Your task to perform on an android device: check android version Image 0: 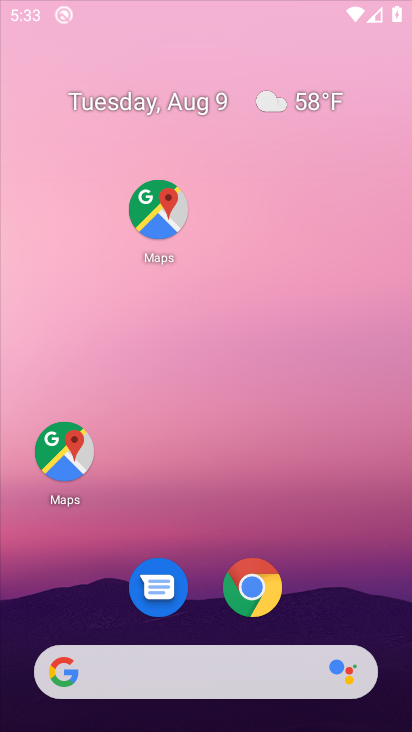
Step 0: click (240, 455)
Your task to perform on an android device: check android version Image 1: 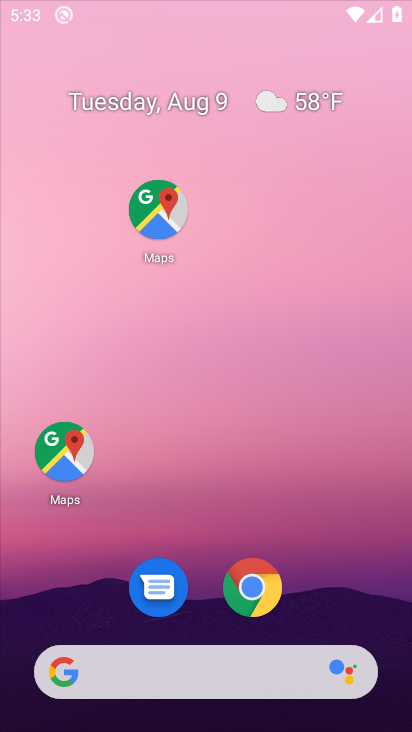
Step 1: drag from (190, 677) to (227, 225)
Your task to perform on an android device: check android version Image 2: 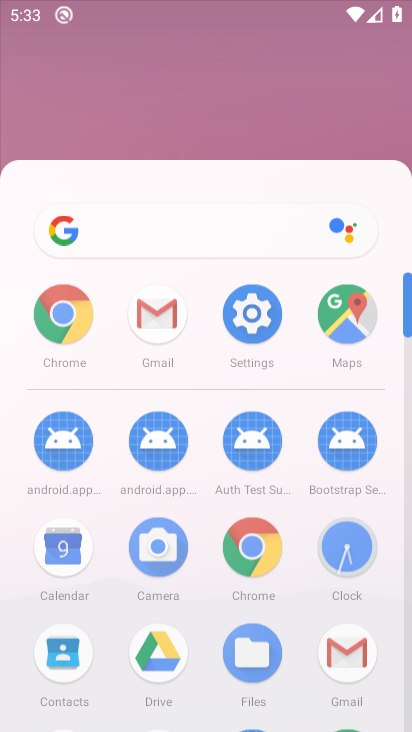
Step 2: drag from (268, 590) to (194, 171)
Your task to perform on an android device: check android version Image 3: 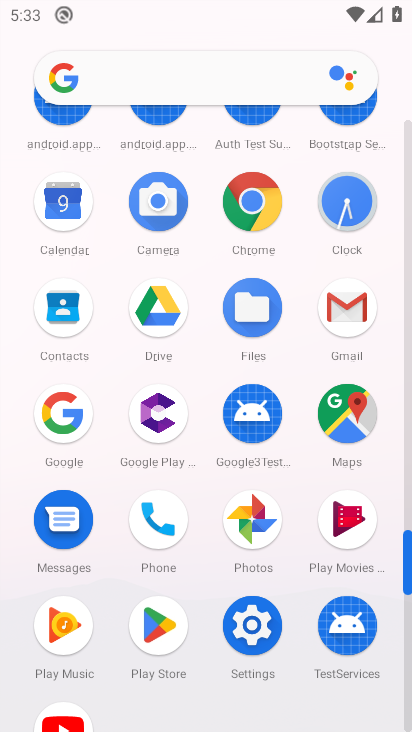
Step 3: click (260, 635)
Your task to perform on an android device: check android version Image 4: 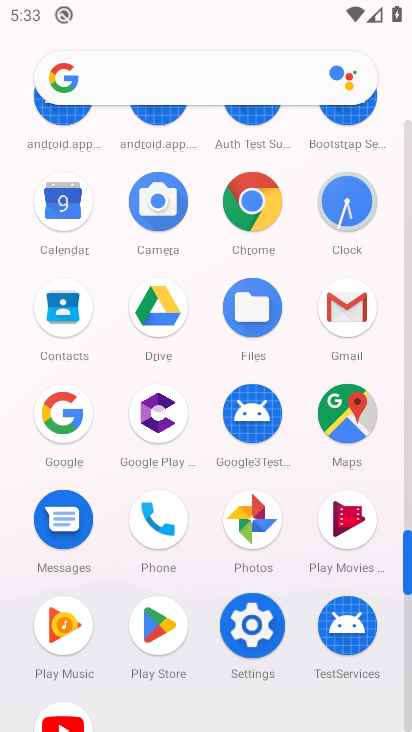
Step 4: click (256, 633)
Your task to perform on an android device: check android version Image 5: 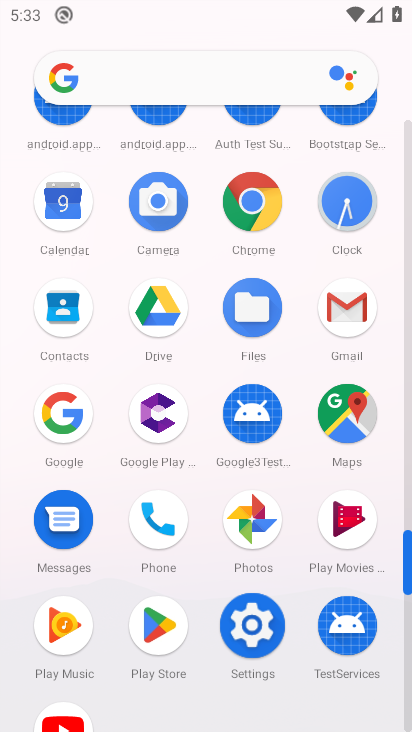
Step 5: click (255, 636)
Your task to perform on an android device: check android version Image 6: 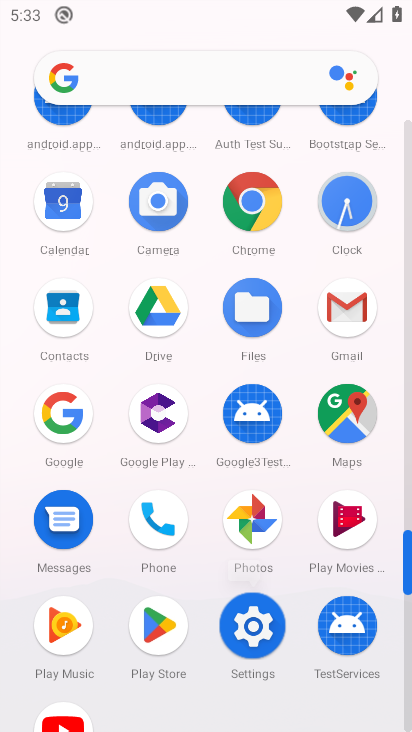
Step 6: click (255, 636)
Your task to perform on an android device: check android version Image 7: 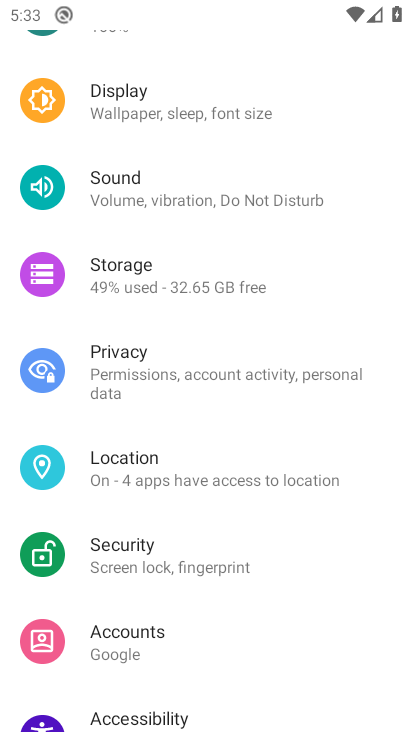
Step 7: click (248, 632)
Your task to perform on an android device: check android version Image 8: 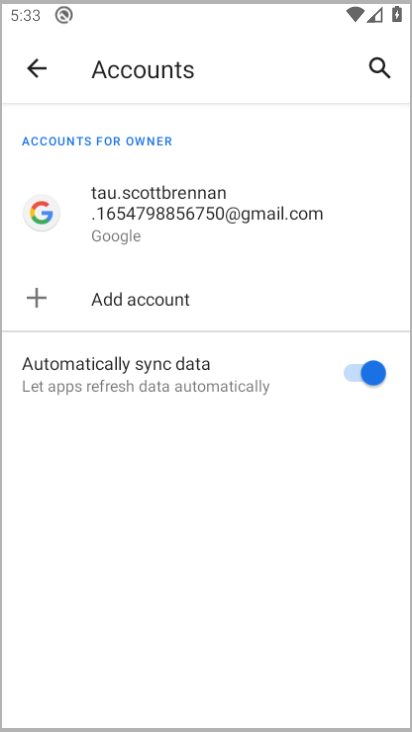
Step 8: drag from (173, 601) to (139, 114)
Your task to perform on an android device: check android version Image 9: 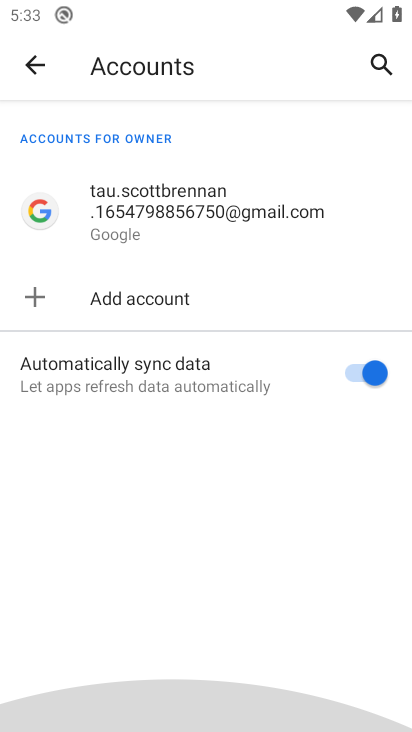
Step 9: drag from (214, 584) to (156, 106)
Your task to perform on an android device: check android version Image 10: 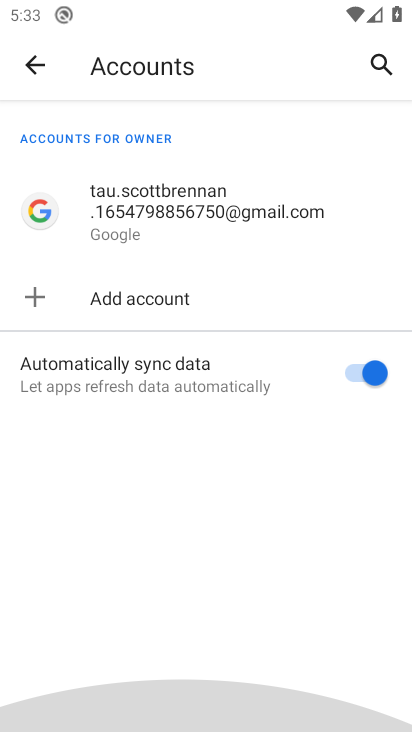
Step 10: drag from (194, 453) to (151, 345)
Your task to perform on an android device: check android version Image 11: 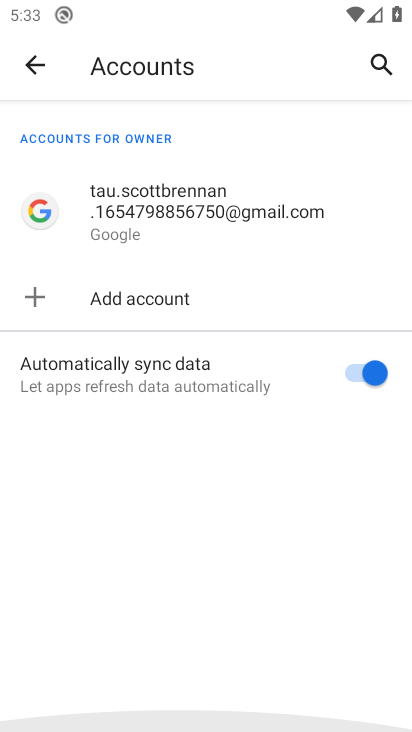
Step 11: click (32, 64)
Your task to perform on an android device: check android version Image 12: 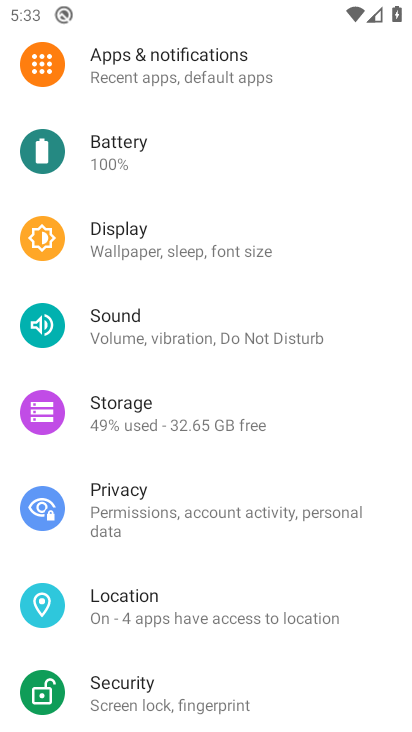
Step 12: drag from (140, 471) to (72, 272)
Your task to perform on an android device: check android version Image 13: 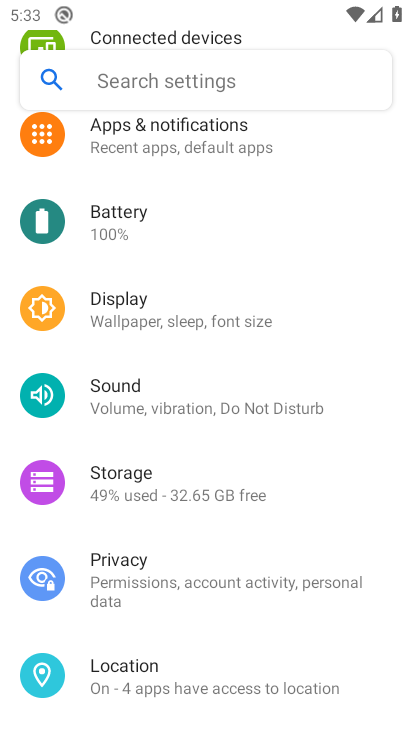
Step 13: click (168, 341)
Your task to perform on an android device: check android version Image 14: 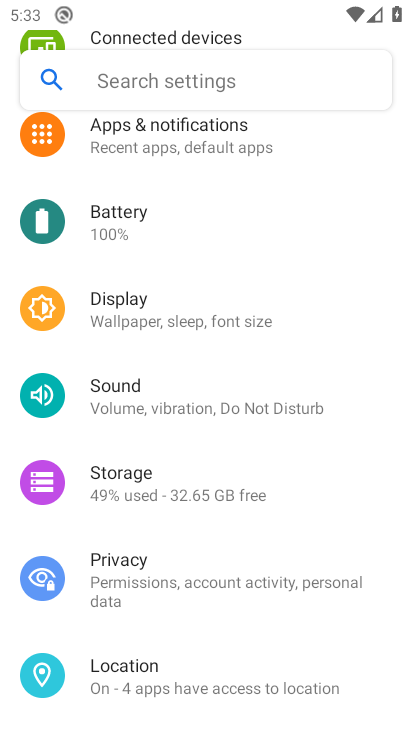
Step 14: drag from (157, 572) to (143, 216)
Your task to perform on an android device: check android version Image 15: 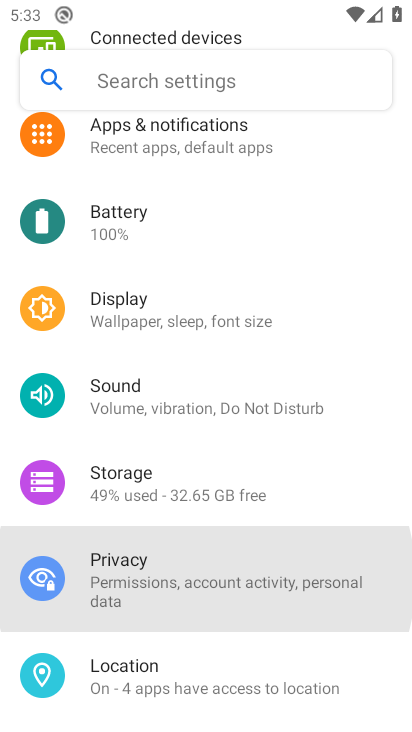
Step 15: drag from (150, 566) to (143, 122)
Your task to perform on an android device: check android version Image 16: 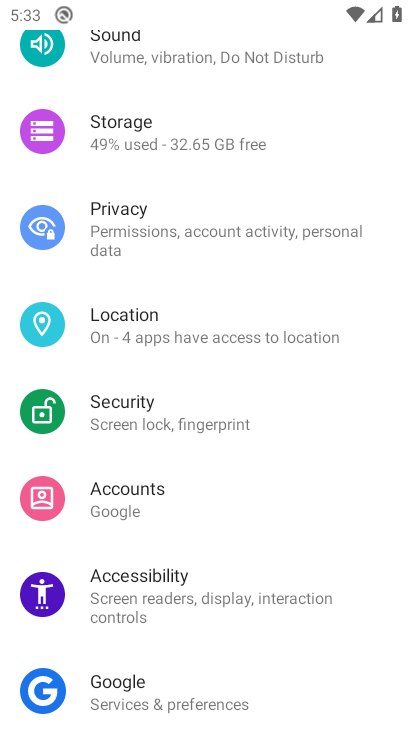
Step 16: drag from (219, 432) to (230, 174)
Your task to perform on an android device: check android version Image 17: 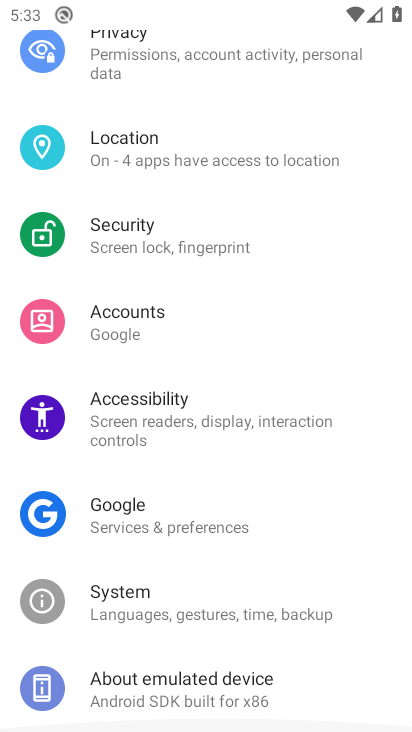
Step 17: drag from (186, 642) to (182, 227)
Your task to perform on an android device: check android version Image 18: 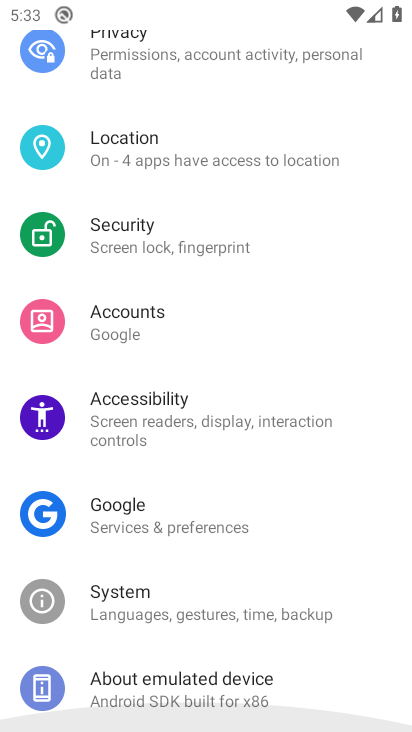
Step 18: drag from (202, 599) to (199, 189)
Your task to perform on an android device: check android version Image 19: 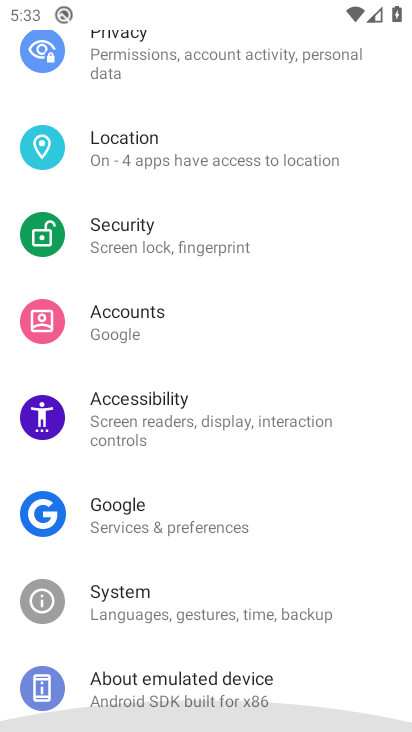
Step 19: click (166, 306)
Your task to perform on an android device: check android version Image 20: 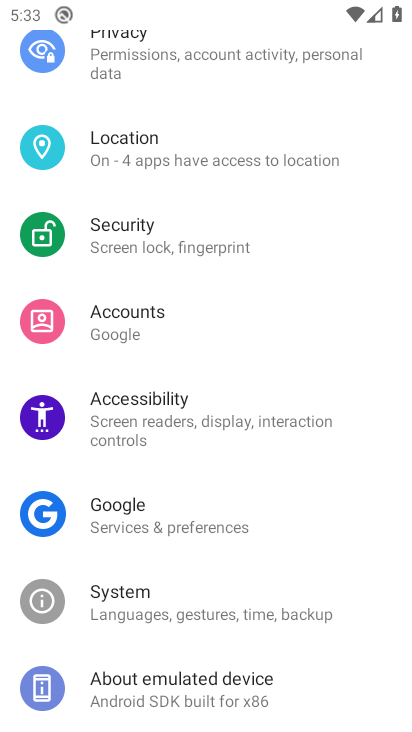
Step 20: click (140, 694)
Your task to perform on an android device: check android version Image 21: 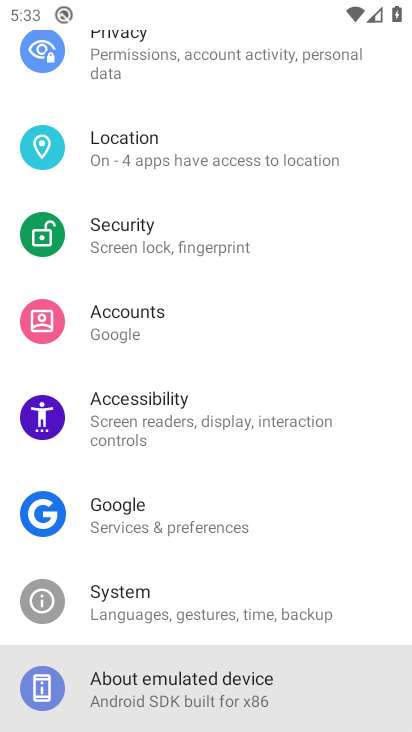
Step 21: click (140, 688)
Your task to perform on an android device: check android version Image 22: 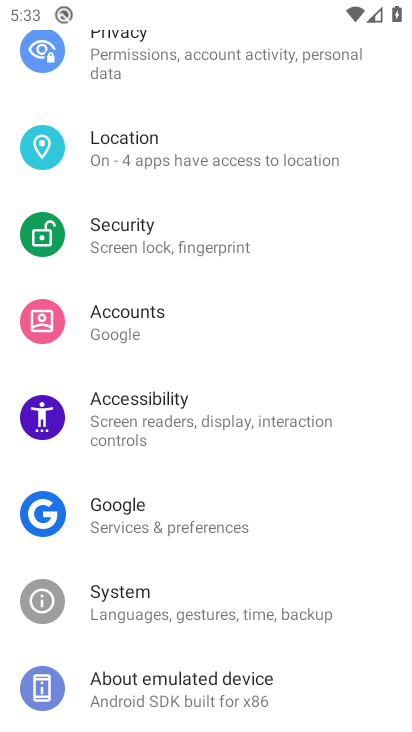
Step 22: click (142, 688)
Your task to perform on an android device: check android version Image 23: 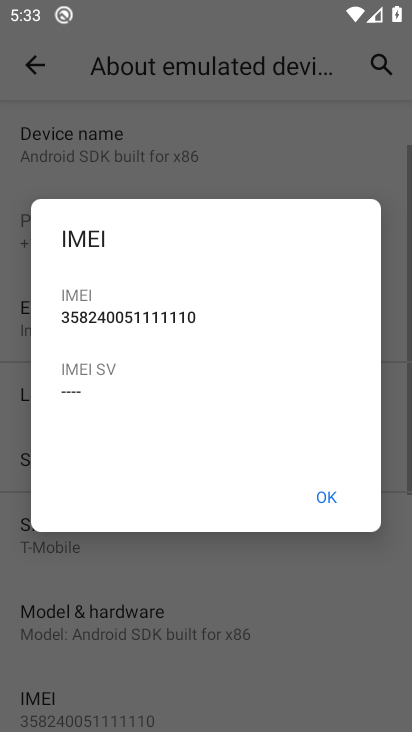
Step 23: click (318, 506)
Your task to perform on an android device: check android version Image 24: 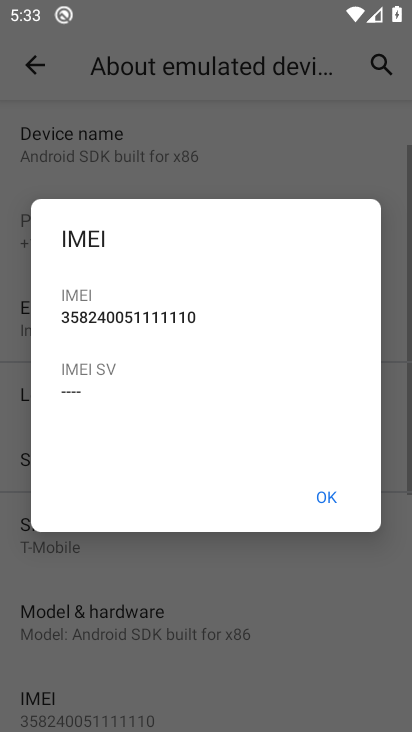
Step 24: click (321, 504)
Your task to perform on an android device: check android version Image 25: 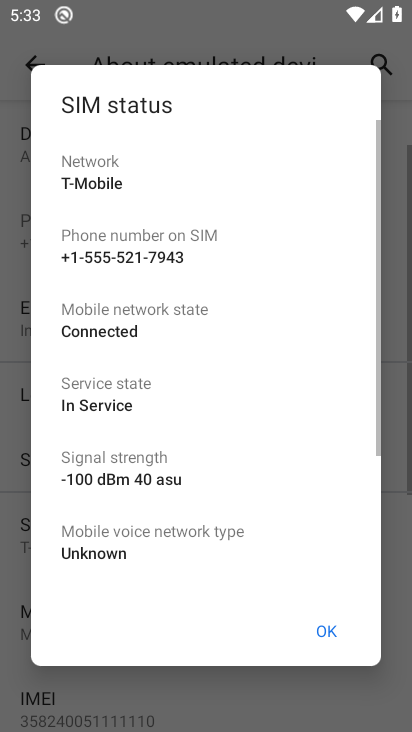
Step 25: drag from (223, 352) to (223, 243)
Your task to perform on an android device: check android version Image 26: 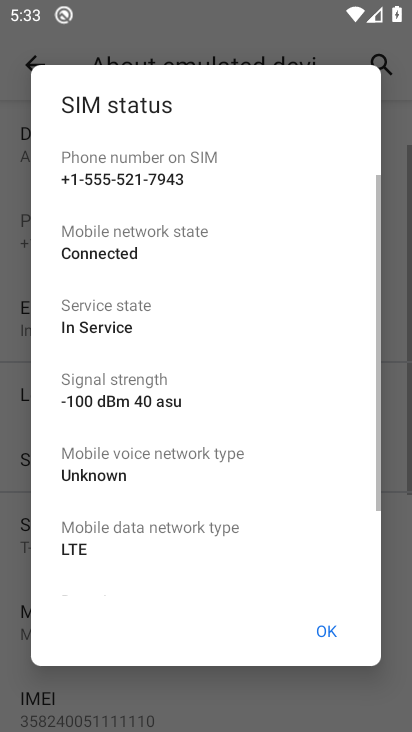
Step 26: drag from (221, 549) to (218, 149)
Your task to perform on an android device: check android version Image 27: 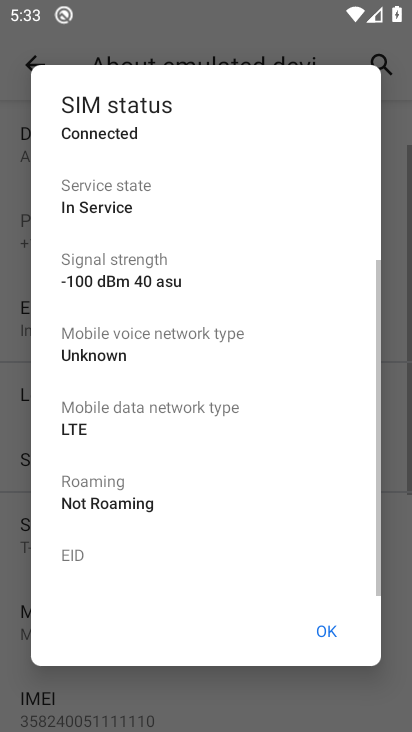
Step 27: click (326, 630)
Your task to perform on an android device: check android version Image 28: 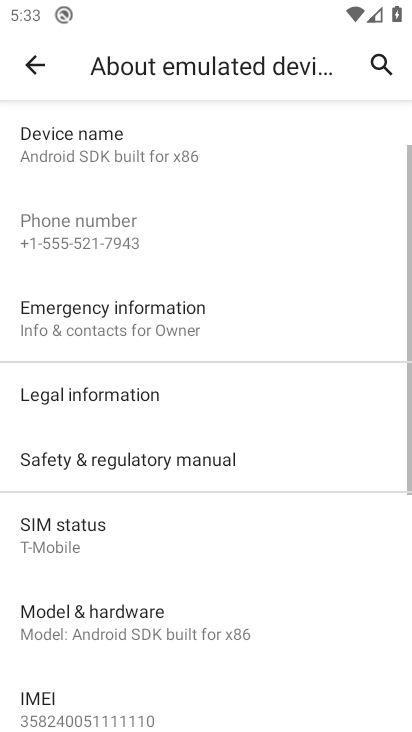
Step 28: task complete